Your task to perform on an android device: Open settings on Google Maps Image 0: 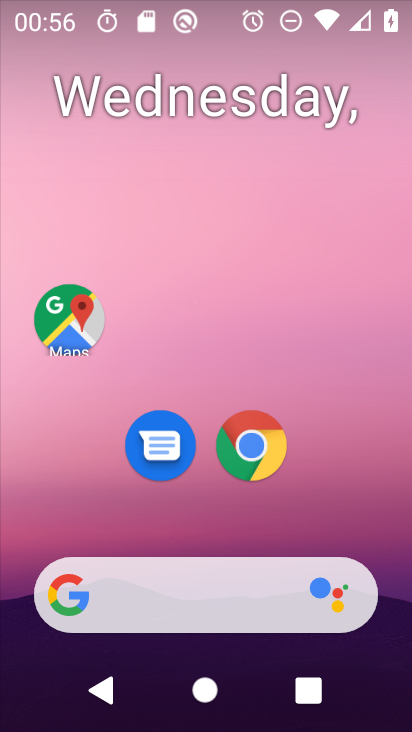
Step 0: drag from (332, 490) to (362, 47)
Your task to perform on an android device: Open settings on Google Maps Image 1: 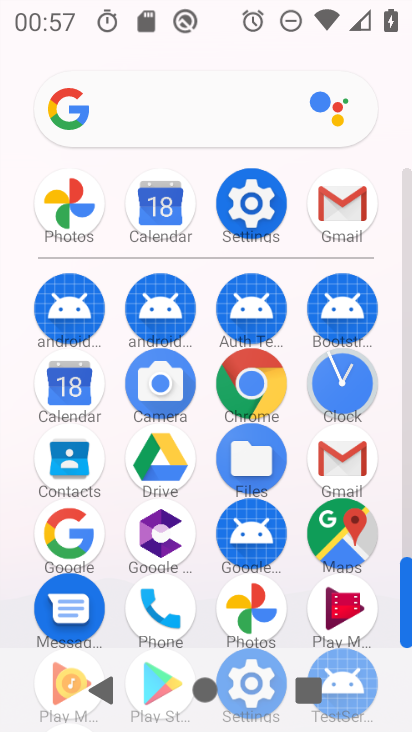
Step 1: click (340, 537)
Your task to perform on an android device: Open settings on Google Maps Image 2: 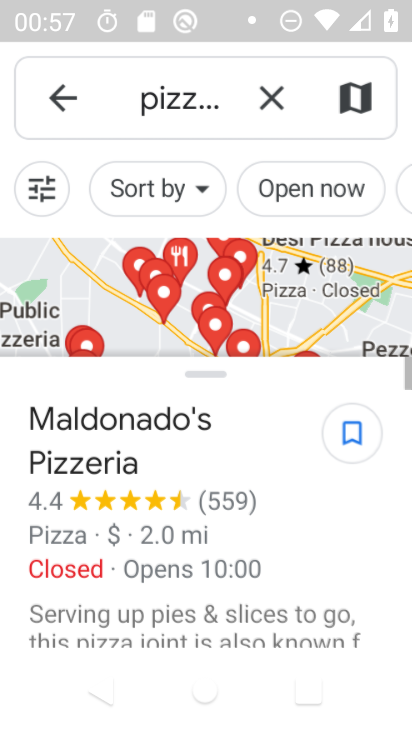
Step 2: click (67, 79)
Your task to perform on an android device: Open settings on Google Maps Image 3: 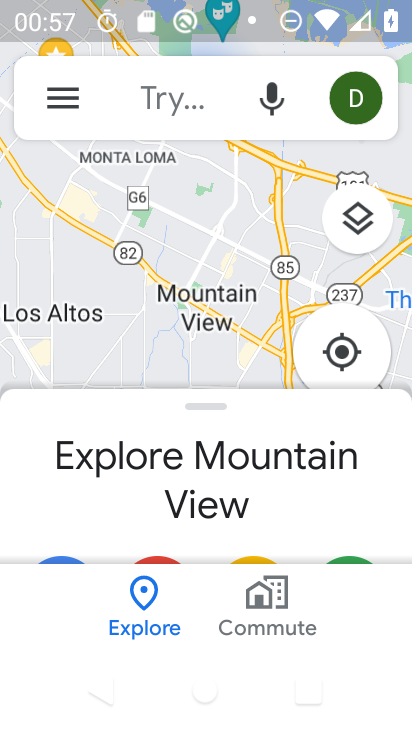
Step 3: click (66, 89)
Your task to perform on an android device: Open settings on Google Maps Image 4: 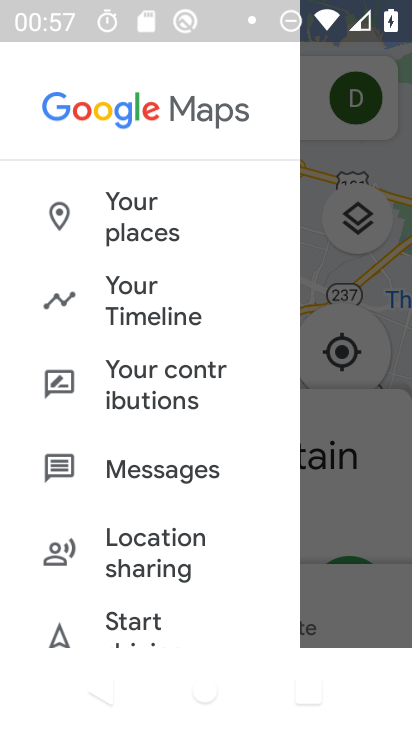
Step 4: drag from (179, 449) to (192, 72)
Your task to perform on an android device: Open settings on Google Maps Image 5: 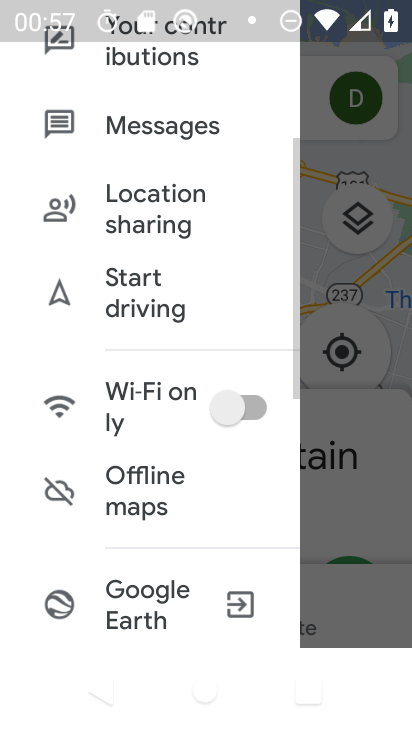
Step 5: drag from (152, 532) to (195, 173)
Your task to perform on an android device: Open settings on Google Maps Image 6: 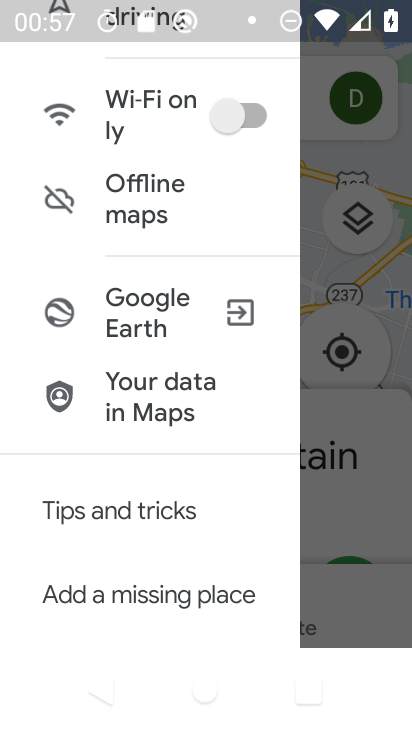
Step 6: drag from (154, 556) to (197, 285)
Your task to perform on an android device: Open settings on Google Maps Image 7: 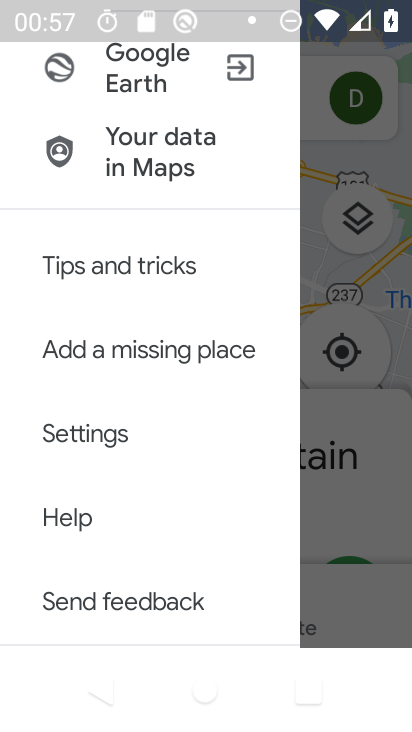
Step 7: click (149, 428)
Your task to perform on an android device: Open settings on Google Maps Image 8: 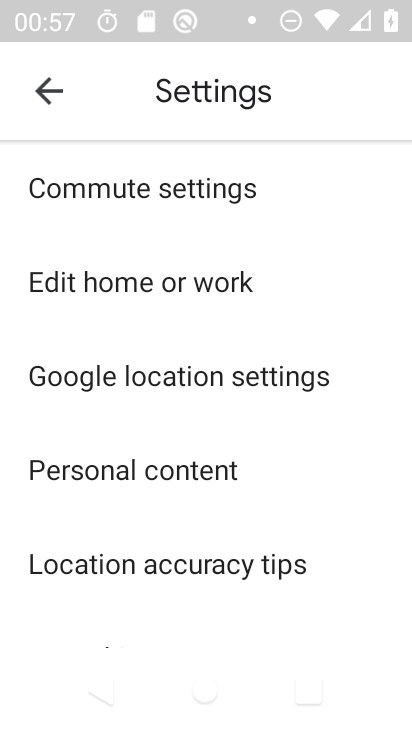
Step 8: task complete